Your task to perform on an android device: turn off data saver in the chrome app Image 0: 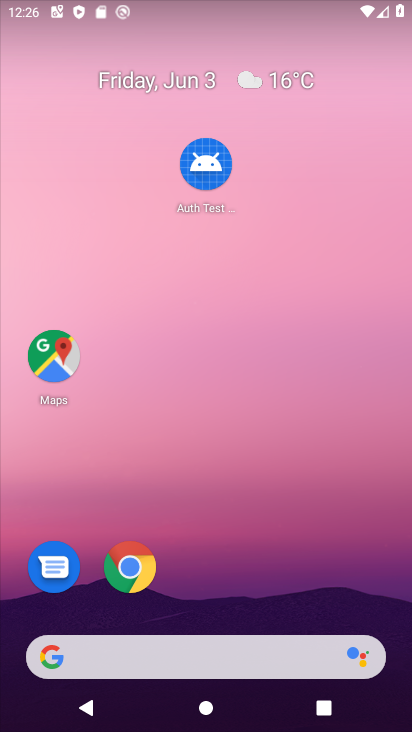
Step 0: click (150, 572)
Your task to perform on an android device: turn off data saver in the chrome app Image 1: 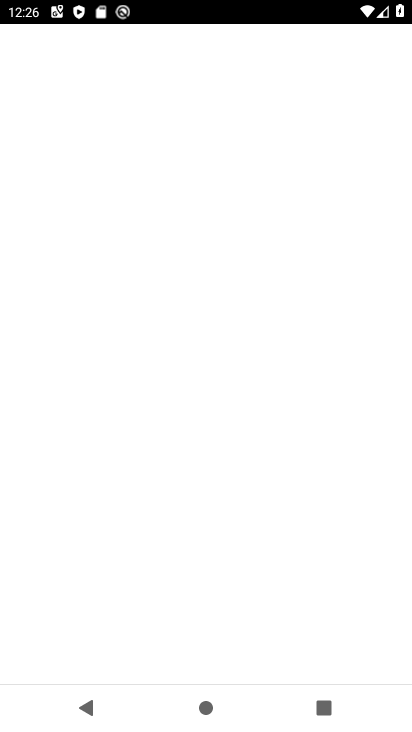
Step 1: click (137, 564)
Your task to perform on an android device: turn off data saver in the chrome app Image 2: 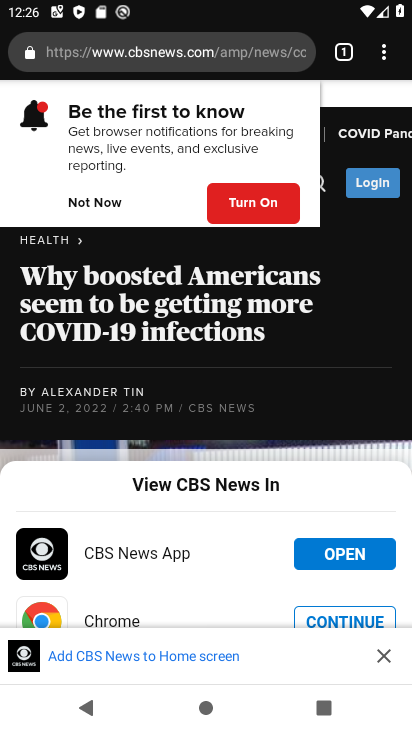
Step 2: click (395, 53)
Your task to perform on an android device: turn off data saver in the chrome app Image 3: 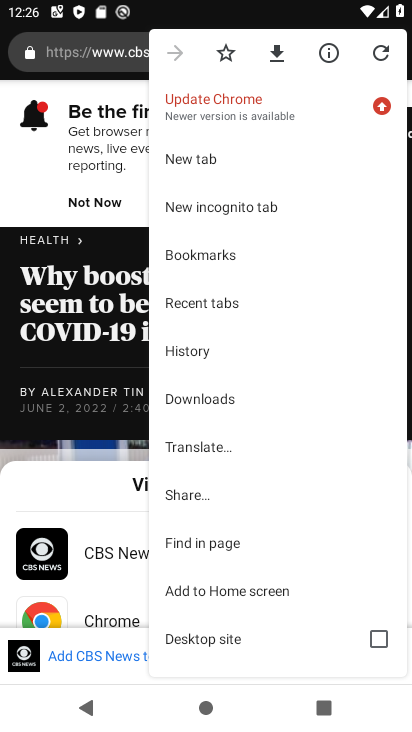
Step 3: drag from (339, 618) to (287, 132)
Your task to perform on an android device: turn off data saver in the chrome app Image 4: 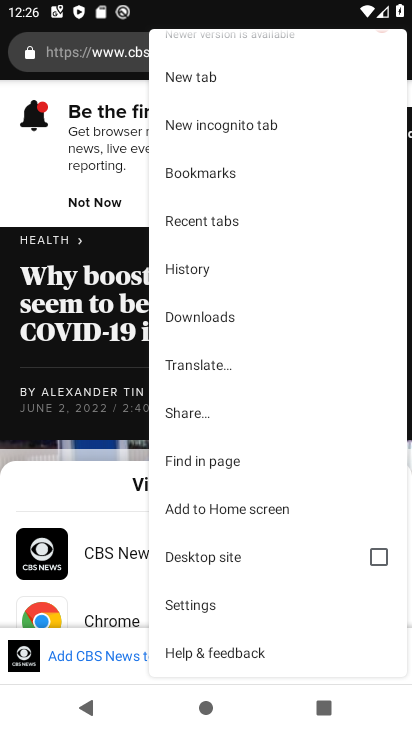
Step 4: click (184, 604)
Your task to perform on an android device: turn off data saver in the chrome app Image 5: 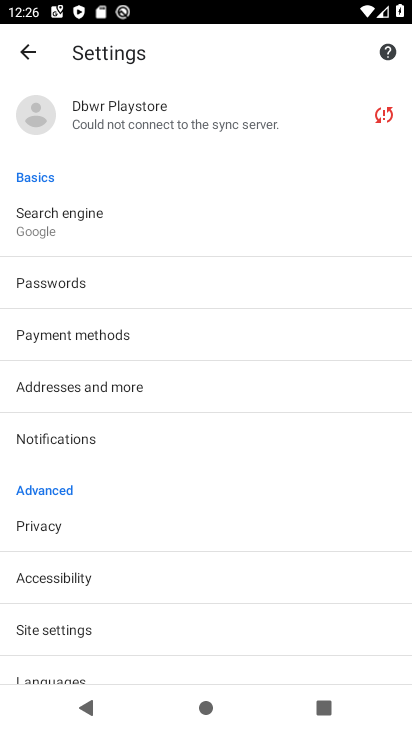
Step 5: click (96, 638)
Your task to perform on an android device: turn off data saver in the chrome app Image 6: 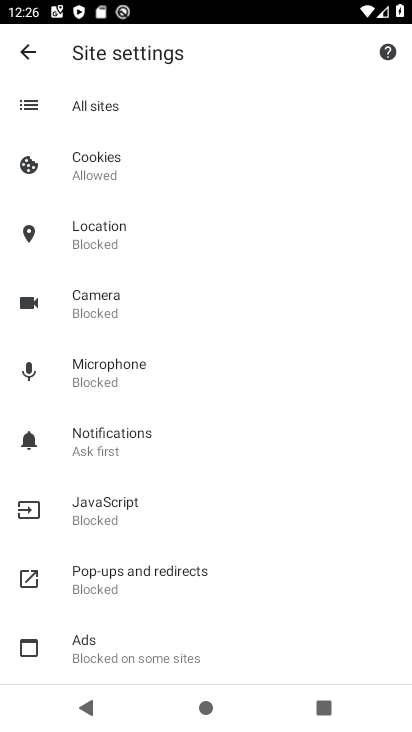
Step 6: click (16, 60)
Your task to perform on an android device: turn off data saver in the chrome app Image 7: 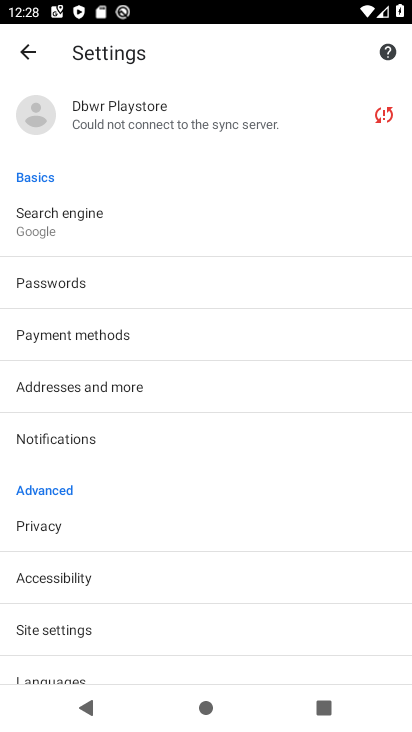
Step 7: click (50, 635)
Your task to perform on an android device: turn off data saver in the chrome app Image 8: 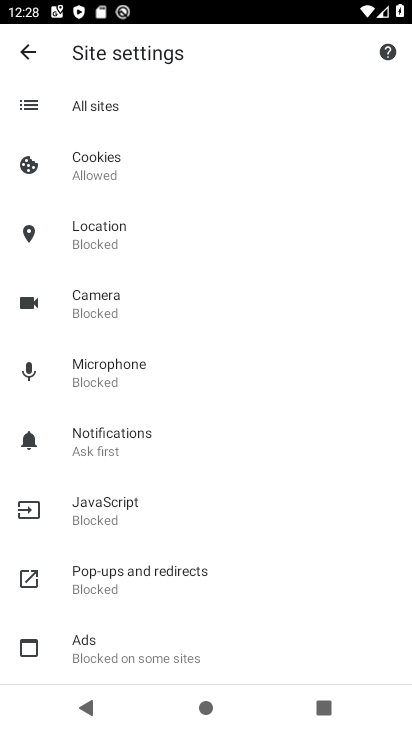
Step 8: press home button
Your task to perform on an android device: turn off data saver in the chrome app Image 9: 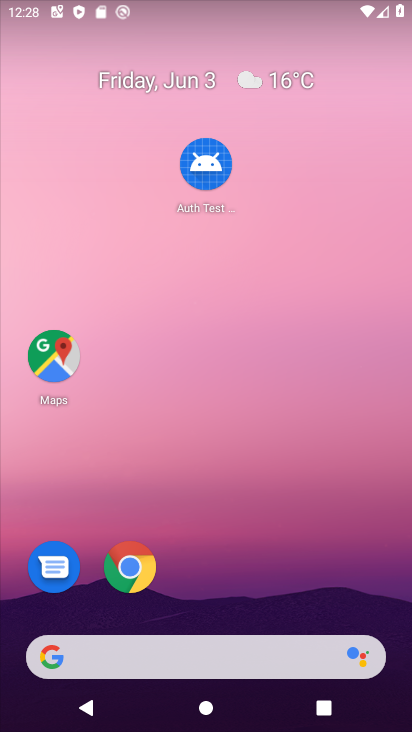
Step 9: click (132, 577)
Your task to perform on an android device: turn off data saver in the chrome app Image 10: 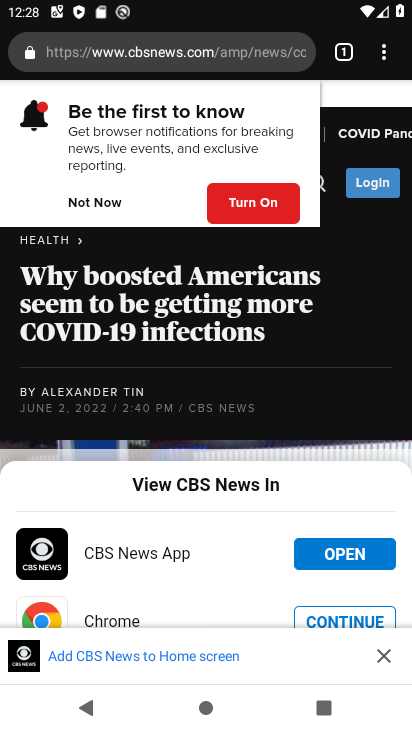
Step 10: click (391, 61)
Your task to perform on an android device: turn off data saver in the chrome app Image 11: 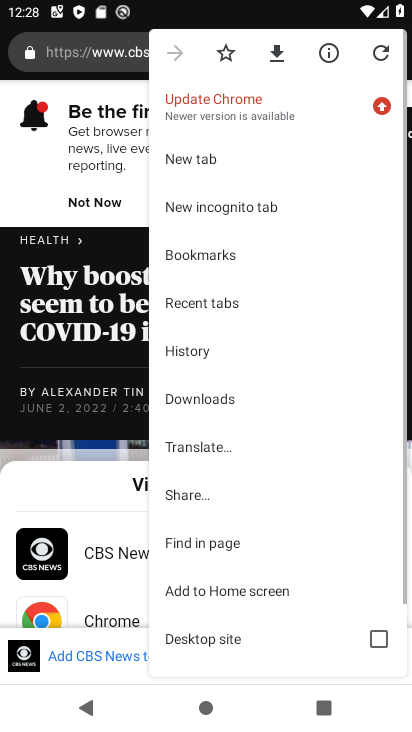
Step 11: click (391, 61)
Your task to perform on an android device: turn off data saver in the chrome app Image 12: 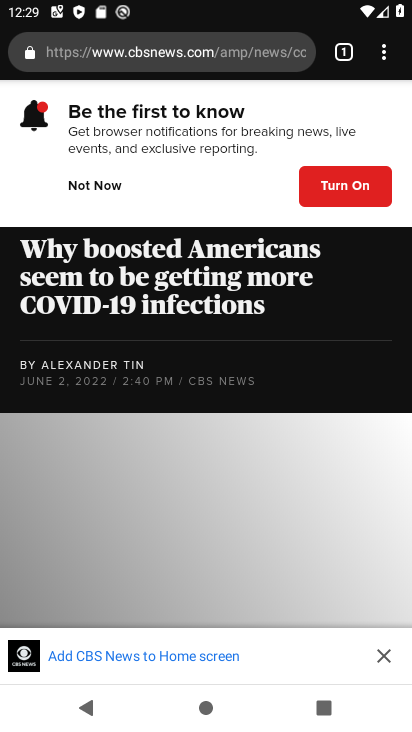
Step 12: click (389, 49)
Your task to perform on an android device: turn off data saver in the chrome app Image 13: 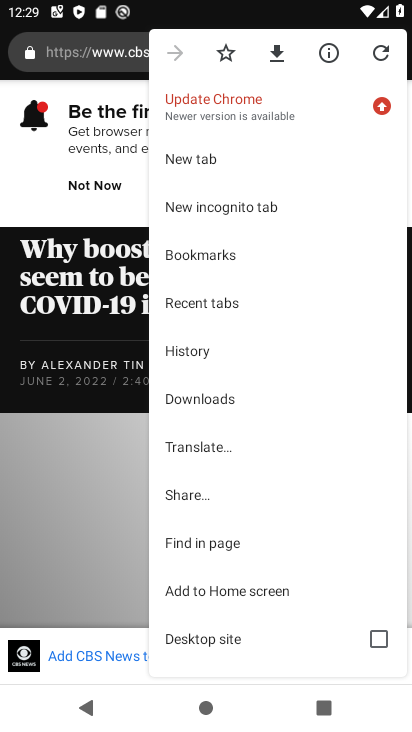
Step 13: drag from (208, 649) to (199, 232)
Your task to perform on an android device: turn off data saver in the chrome app Image 14: 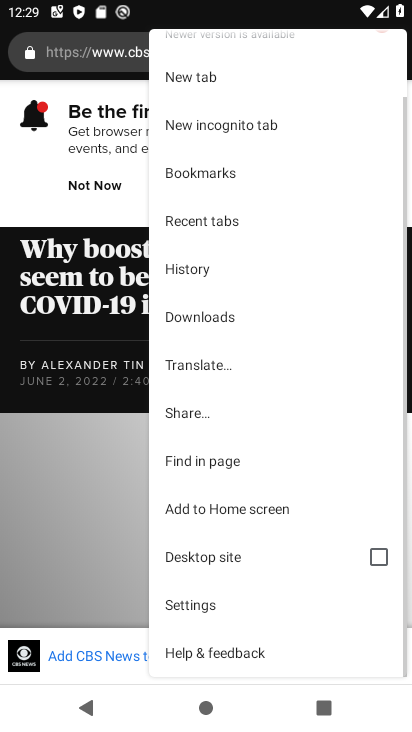
Step 14: click (212, 620)
Your task to perform on an android device: turn off data saver in the chrome app Image 15: 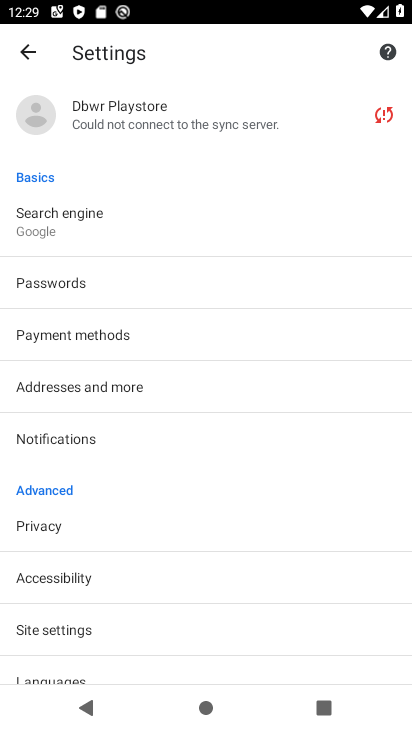
Step 15: drag from (132, 643) to (205, 90)
Your task to perform on an android device: turn off data saver in the chrome app Image 16: 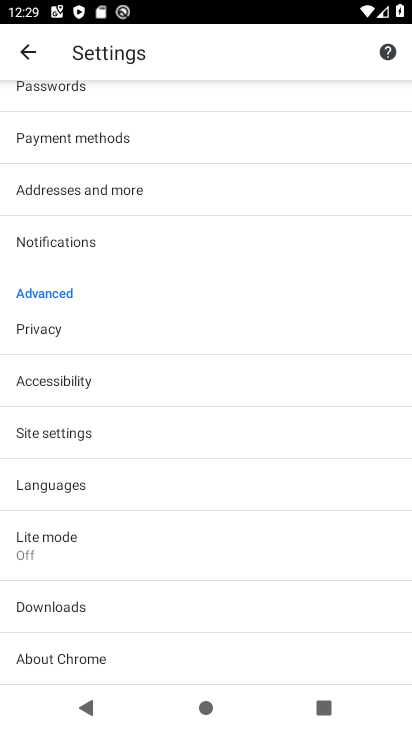
Step 16: click (200, 448)
Your task to perform on an android device: turn off data saver in the chrome app Image 17: 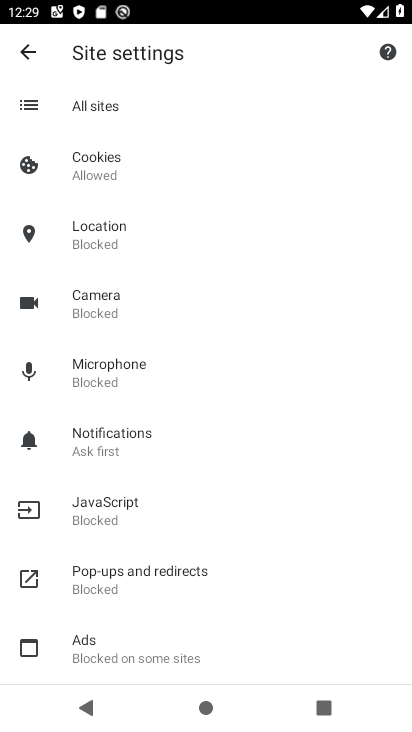
Step 17: click (41, 51)
Your task to perform on an android device: turn off data saver in the chrome app Image 18: 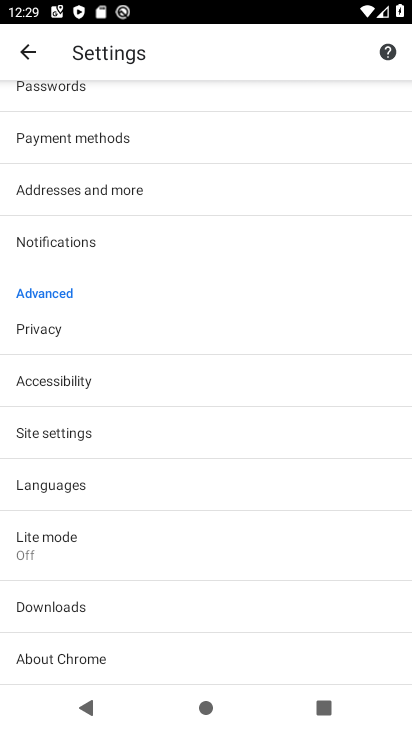
Step 18: click (127, 553)
Your task to perform on an android device: turn off data saver in the chrome app Image 19: 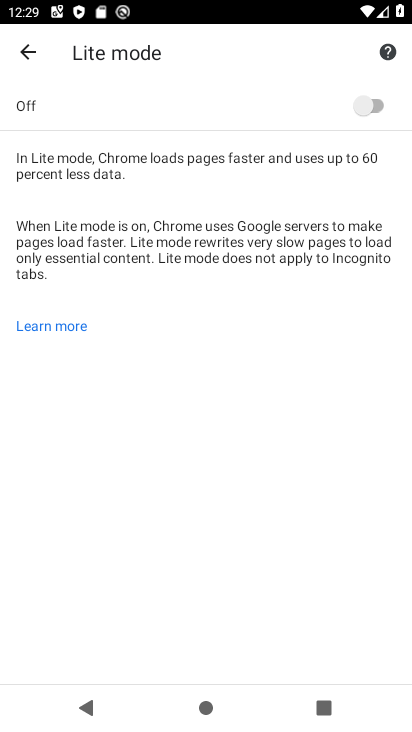
Step 19: task complete